Your task to perform on an android device: toggle pop-ups in chrome Image 0: 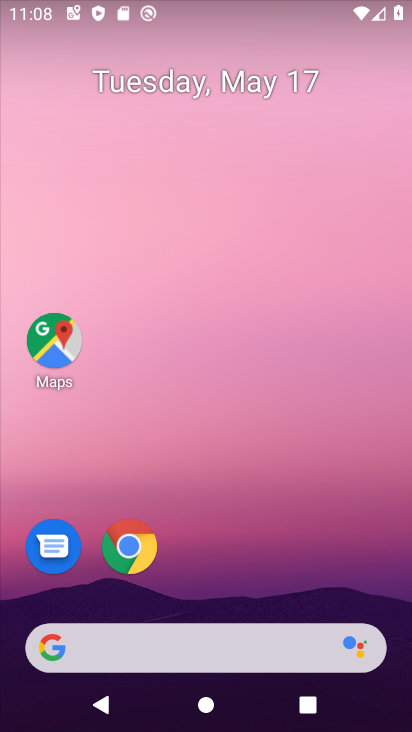
Step 0: drag from (226, 613) to (150, 21)
Your task to perform on an android device: toggle pop-ups in chrome Image 1: 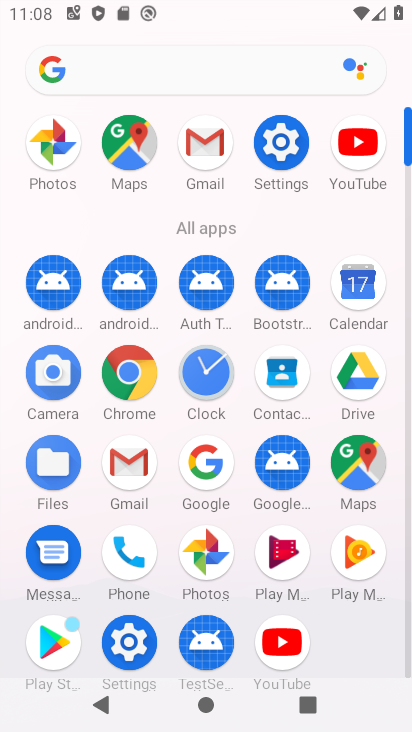
Step 1: click (138, 371)
Your task to perform on an android device: toggle pop-ups in chrome Image 2: 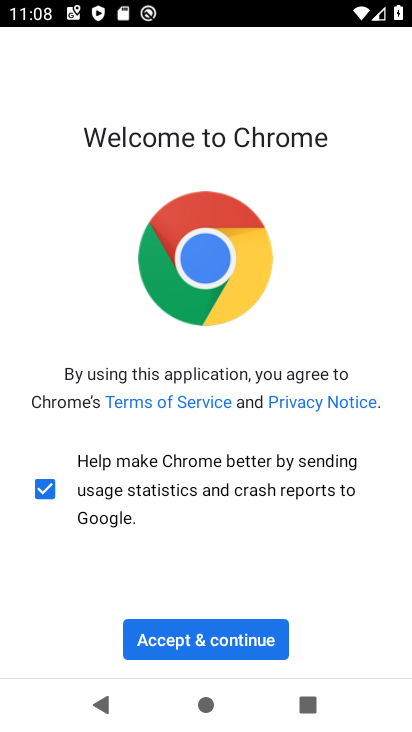
Step 2: click (247, 631)
Your task to perform on an android device: toggle pop-ups in chrome Image 3: 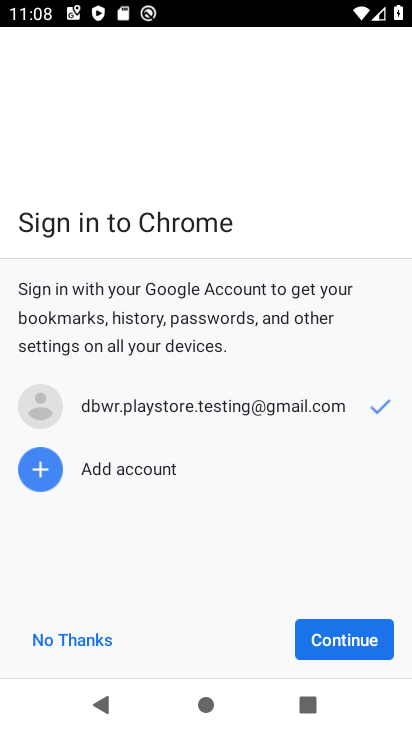
Step 3: click (322, 645)
Your task to perform on an android device: toggle pop-ups in chrome Image 4: 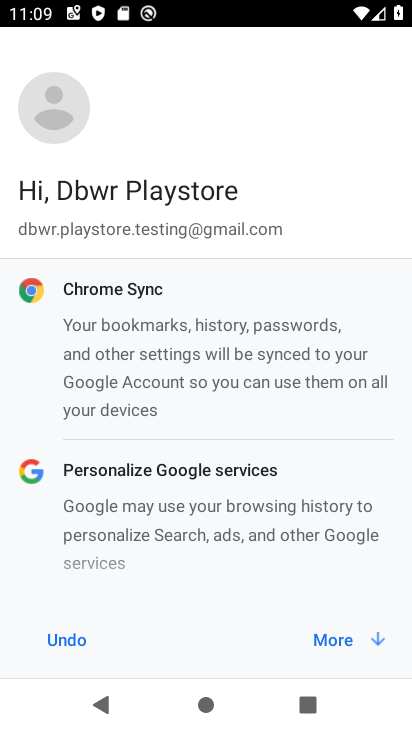
Step 4: click (322, 645)
Your task to perform on an android device: toggle pop-ups in chrome Image 5: 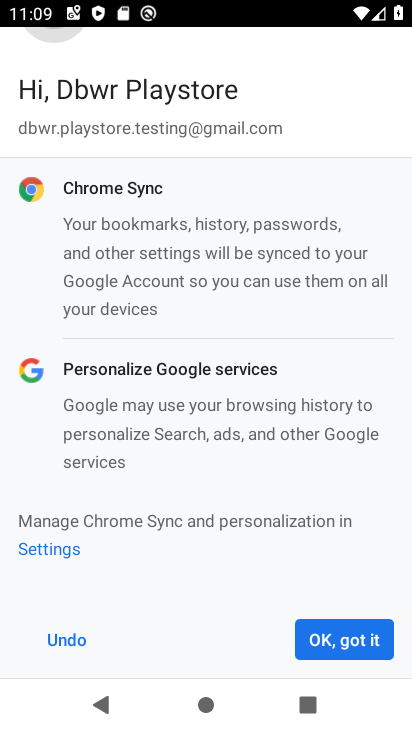
Step 5: click (322, 645)
Your task to perform on an android device: toggle pop-ups in chrome Image 6: 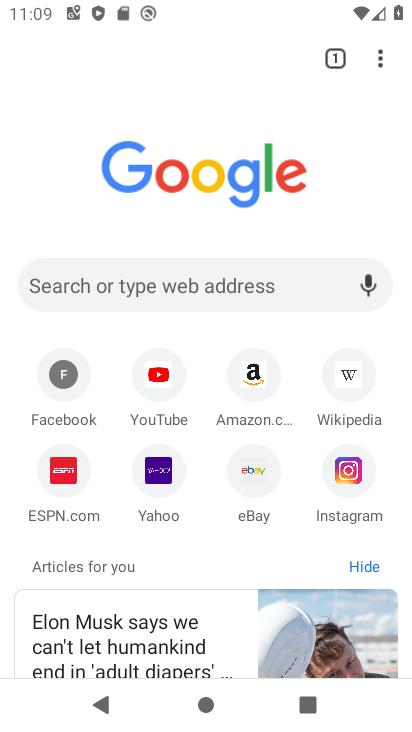
Step 6: click (381, 55)
Your task to perform on an android device: toggle pop-ups in chrome Image 7: 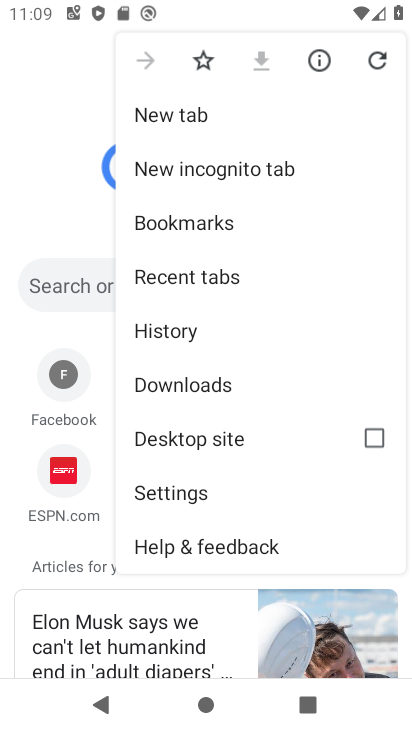
Step 7: click (284, 503)
Your task to perform on an android device: toggle pop-ups in chrome Image 8: 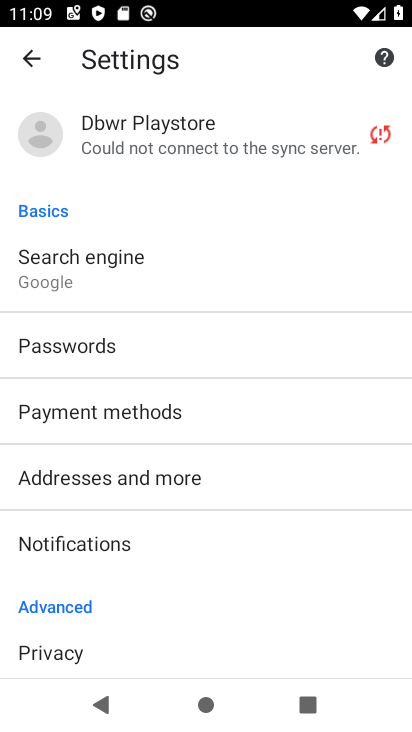
Step 8: drag from (241, 625) to (171, 187)
Your task to perform on an android device: toggle pop-ups in chrome Image 9: 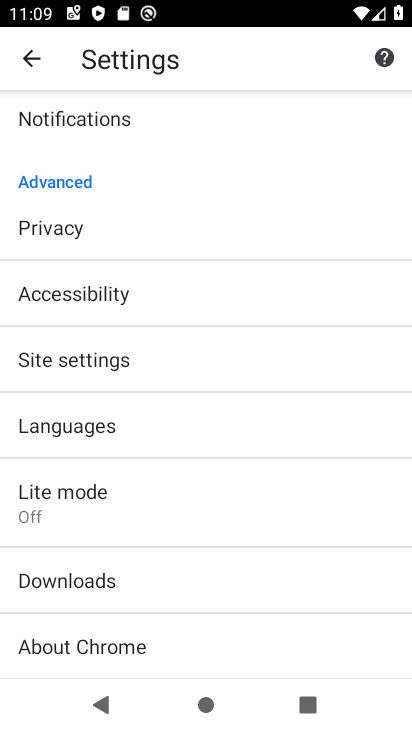
Step 9: drag from (226, 571) to (212, 468)
Your task to perform on an android device: toggle pop-ups in chrome Image 10: 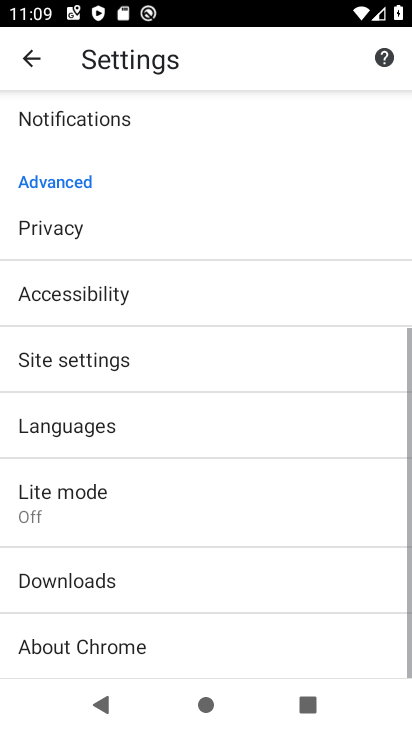
Step 10: click (178, 374)
Your task to perform on an android device: toggle pop-ups in chrome Image 11: 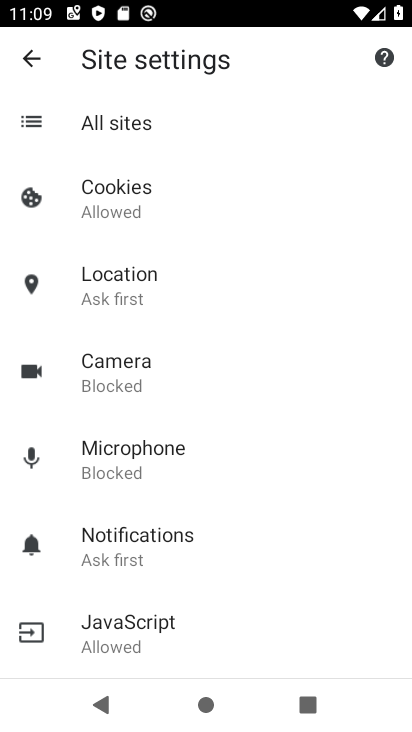
Step 11: drag from (222, 579) to (199, 283)
Your task to perform on an android device: toggle pop-ups in chrome Image 12: 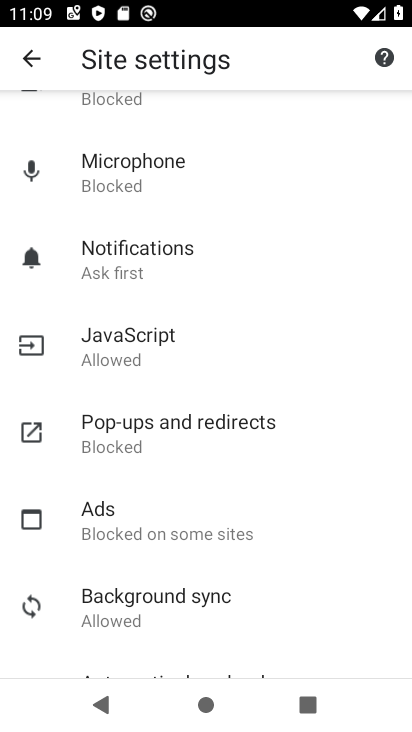
Step 12: click (237, 431)
Your task to perform on an android device: toggle pop-ups in chrome Image 13: 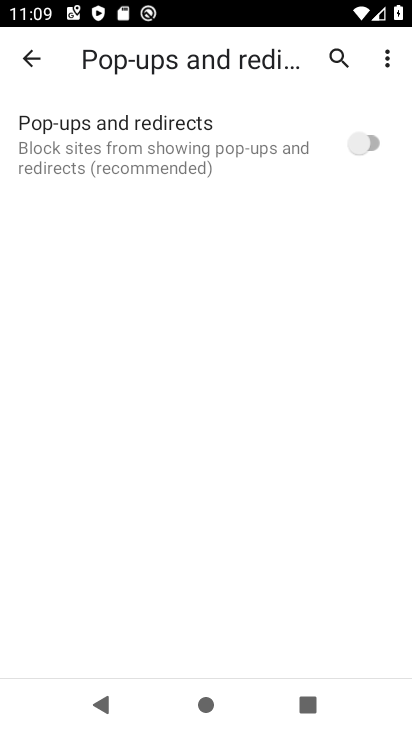
Step 13: click (375, 155)
Your task to perform on an android device: toggle pop-ups in chrome Image 14: 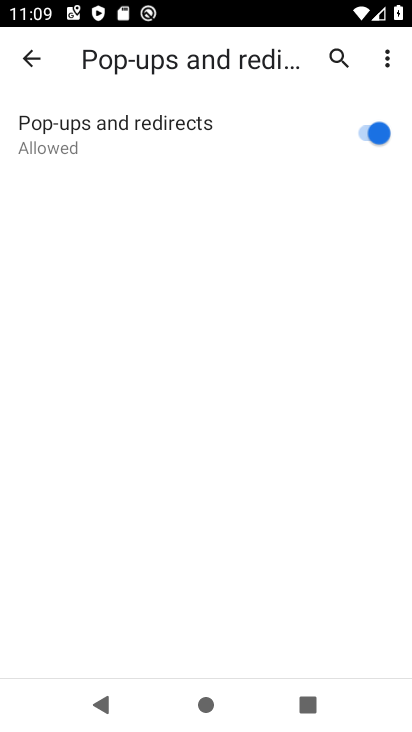
Step 14: task complete